Your task to perform on an android device: Is it going to rain this weekend? Image 0: 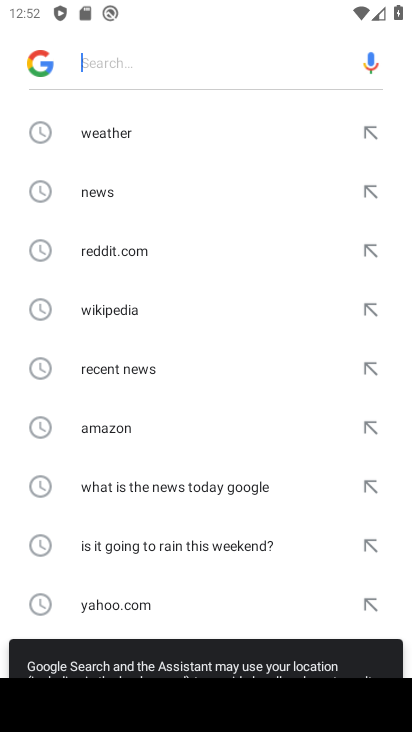
Step 0: press home button
Your task to perform on an android device: Is it going to rain this weekend? Image 1: 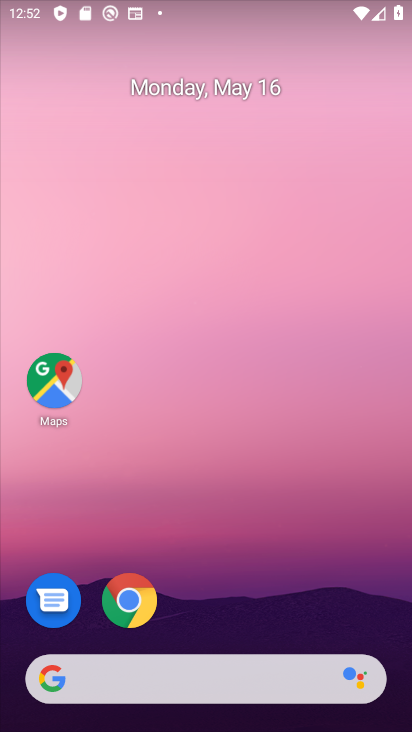
Step 1: click (238, 672)
Your task to perform on an android device: Is it going to rain this weekend? Image 2: 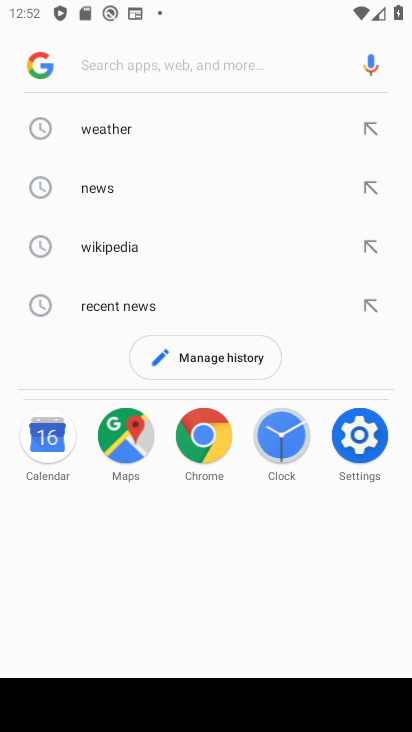
Step 2: click (143, 130)
Your task to perform on an android device: Is it going to rain this weekend? Image 3: 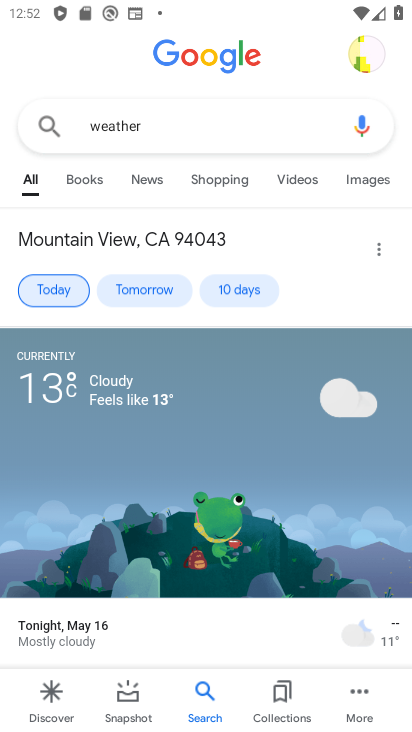
Step 3: click (239, 299)
Your task to perform on an android device: Is it going to rain this weekend? Image 4: 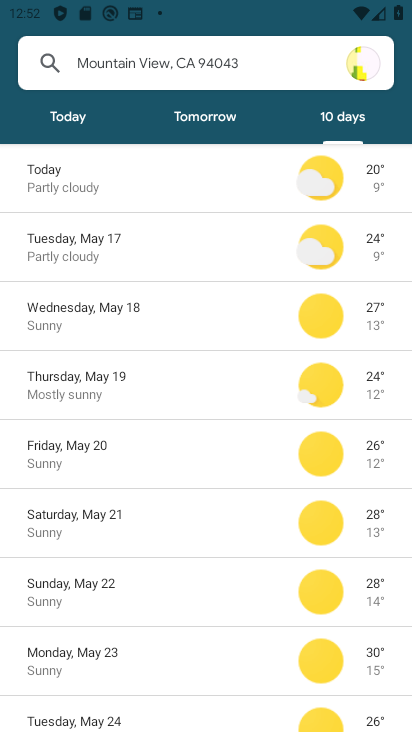
Step 4: task complete